Your task to perform on an android device: Turn off the flashlight Image 0: 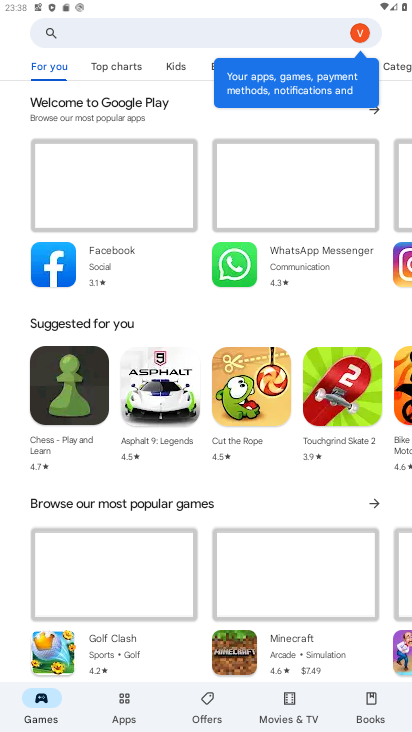
Step 0: press home button
Your task to perform on an android device: Turn off the flashlight Image 1: 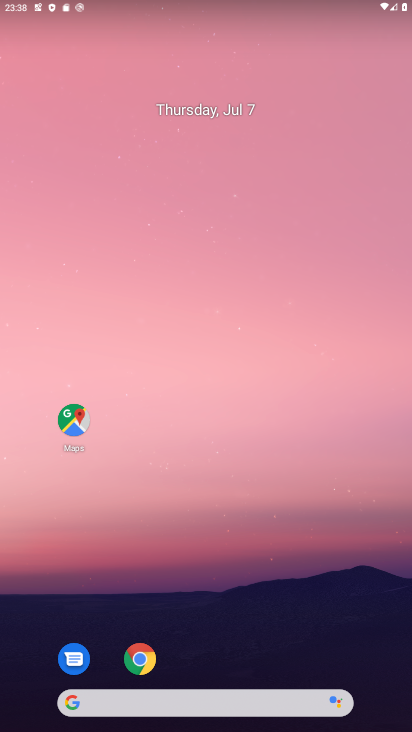
Step 1: drag from (132, 5) to (249, 704)
Your task to perform on an android device: Turn off the flashlight Image 2: 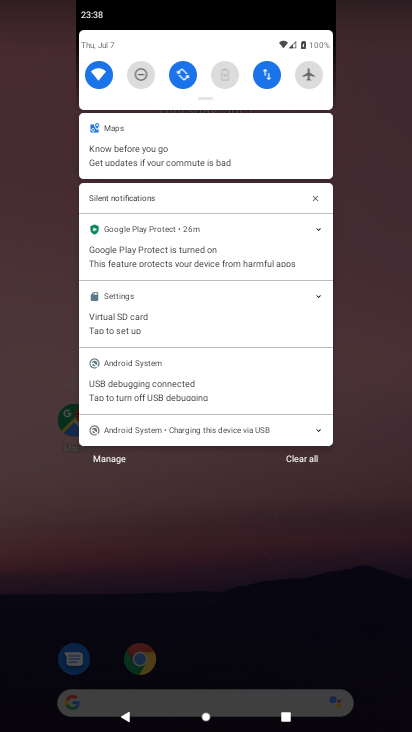
Step 2: drag from (201, 53) to (192, 727)
Your task to perform on an android device: Turn off the flashlight Image 3: 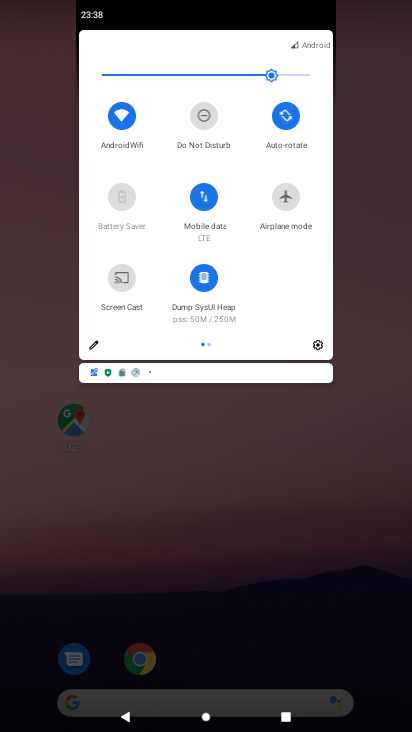
Step 3: click (322, 339)
Your task to perform on an android device: Turn off the flashlight Image 4: 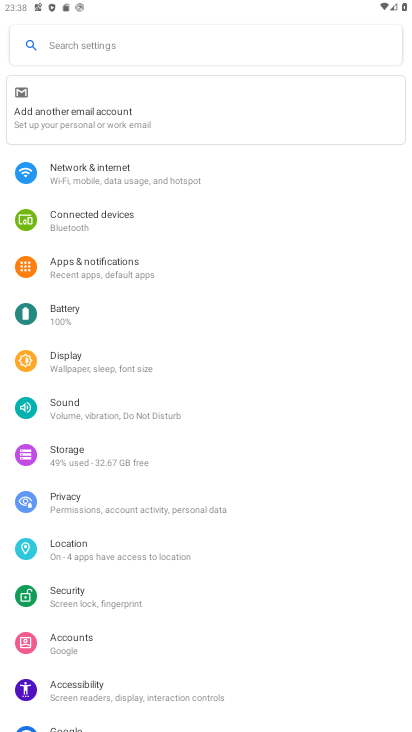
Step 4: task complete